Your task to perform on an android device: clear all cookies in the chrome app Image 0: 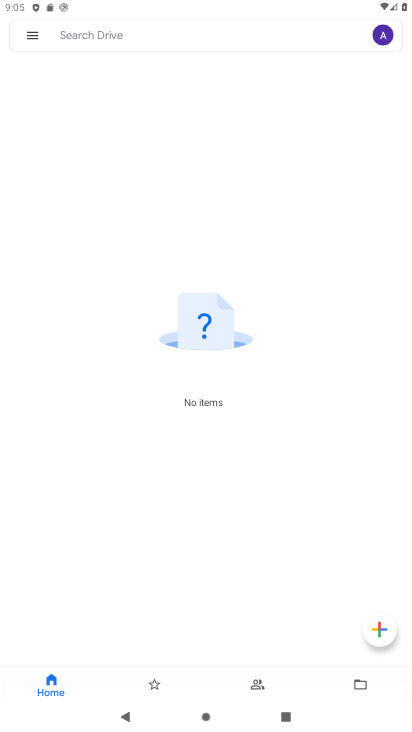
Step 0: press home button
Your task to perform on an android device: clear all cookies in the chrome app Image 1: 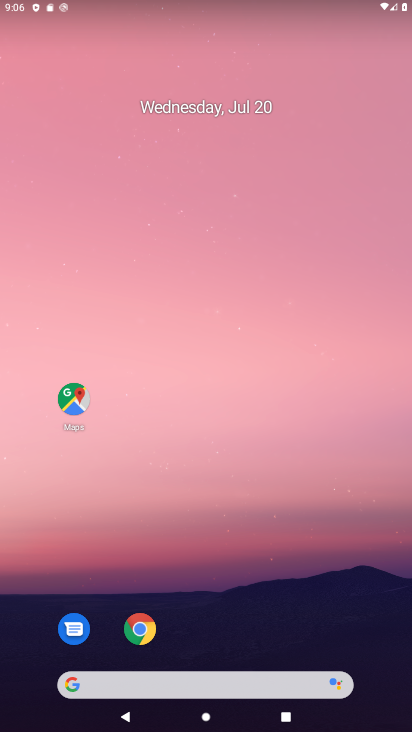
Step 1: drag from (302, 6) to (381, 7)
Your task to perform on an android device: clear all cookies in the chrome app Image 2: 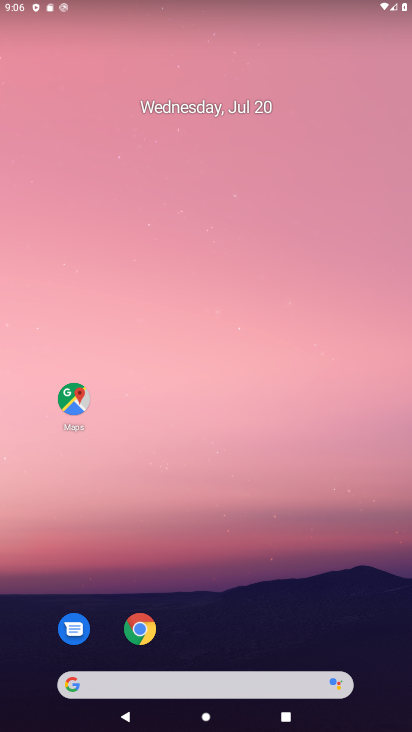
Step 2: drag from (239, 633) to (361, 66)
Your task to perform on an android device: clear all cookies in the chrome app Image 3: 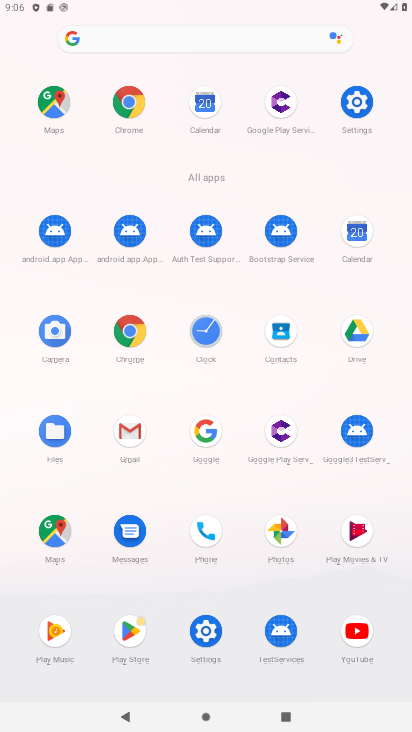
Step 3: click (122, 98)
Your task to perform on an android device: clear all cookies in the chrome app Image 4: 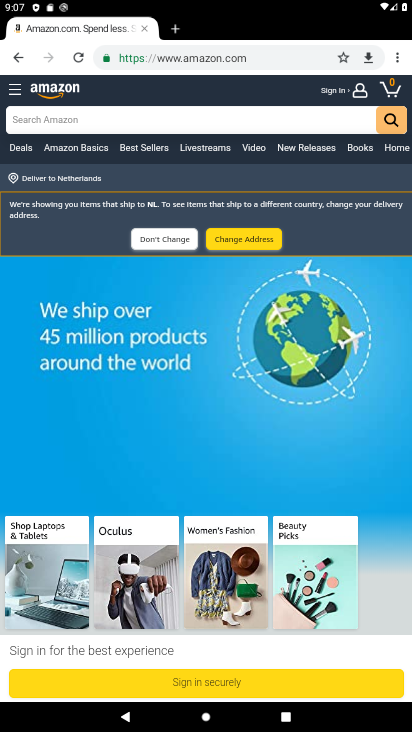
Step 4: drag from (393, 54) to (263, 384)
Your task to perform on an android device: clear all cookies in the chrome app Image 5: 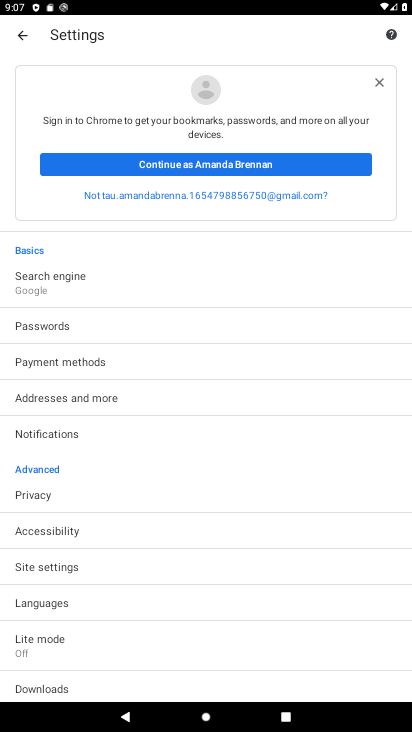
Step 5: click (42, 564)
Your task to perform on an android device: clear all cookies in the chrome app Image 6: 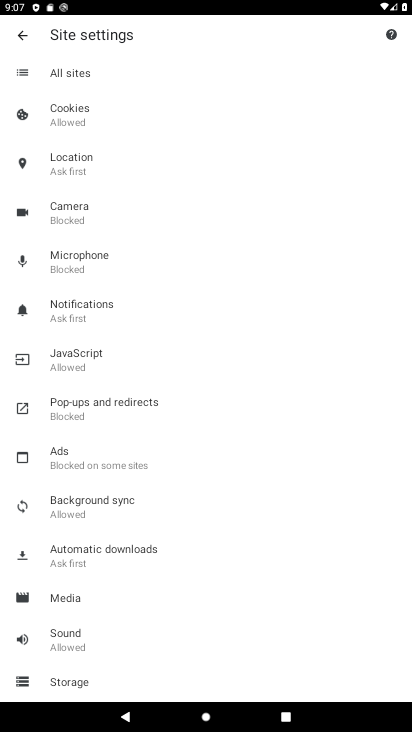
Step 6: click (58, 125)
Your task to perform on an android device: clear all cookies in the chrome app Image 7: 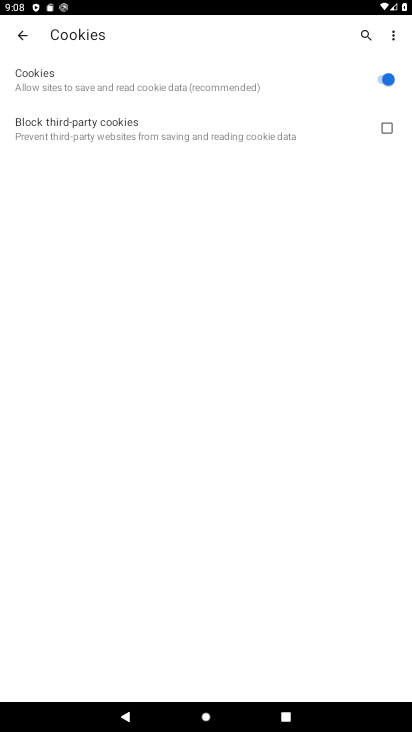
Step 7: task complete